Your task to perform on an android device: Go to internet settings Image 0: 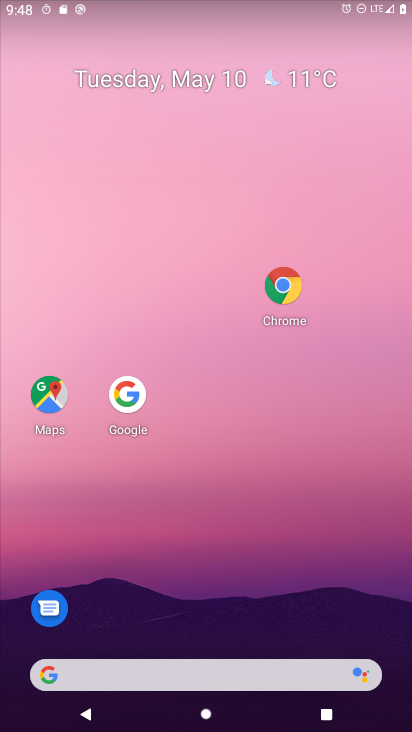
Step 0: drag from (229, 673) to (335, 90)
Your task to perform on an android device: Go to internet settings Image 1: 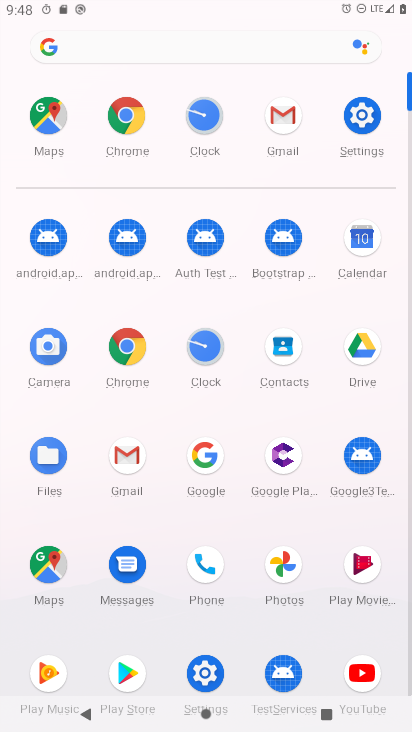
Step 1: click (363, 120)
Your task to perform on an android device: Go to internet settings Image 2: 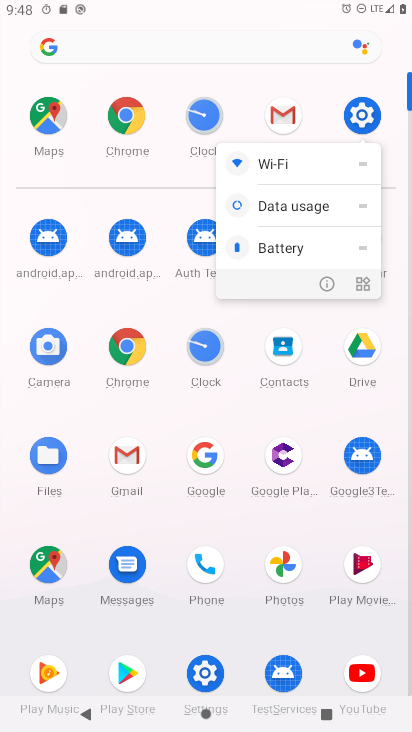
Step 2: click (362, 117)
Your task to perform on an android device: Go to internet settings Image 3: 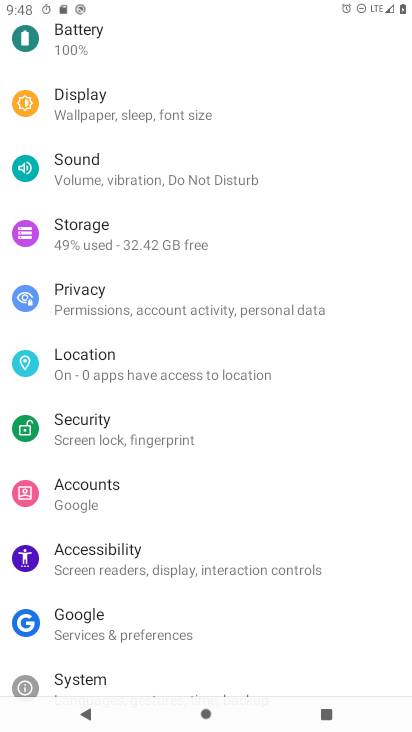
Step 3: drag from (246, 88) to (235, 477)
Your task to perform on an android device: Go to internet settings Image 4: 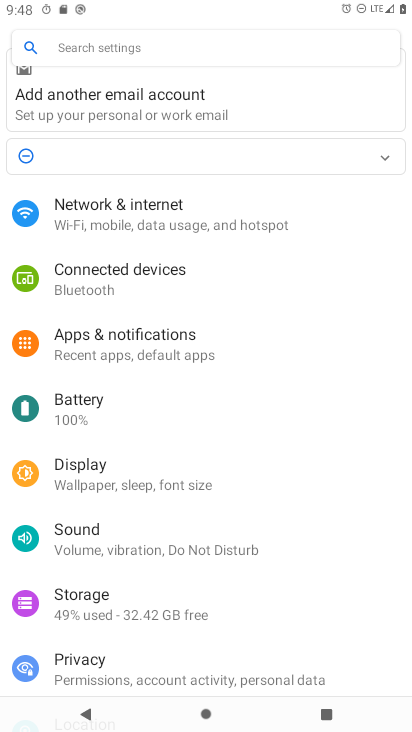
Step 4: click (166, 210)
Your task to perform on an android device: Go to internet settings Image 5: 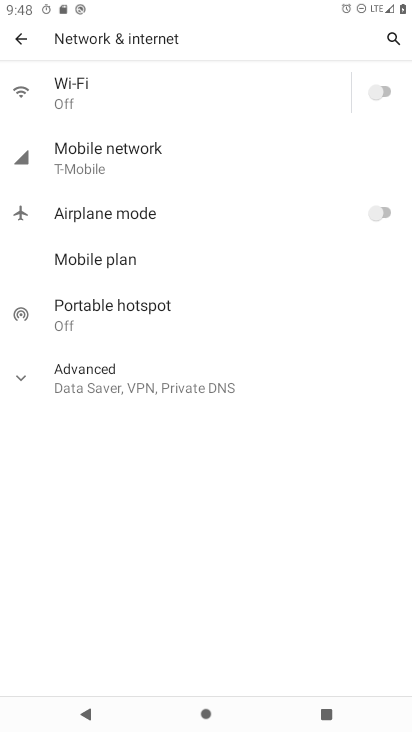
Step 5: click (170, 92)
Your task to perform on an android device: Go to internet settings Image 6: 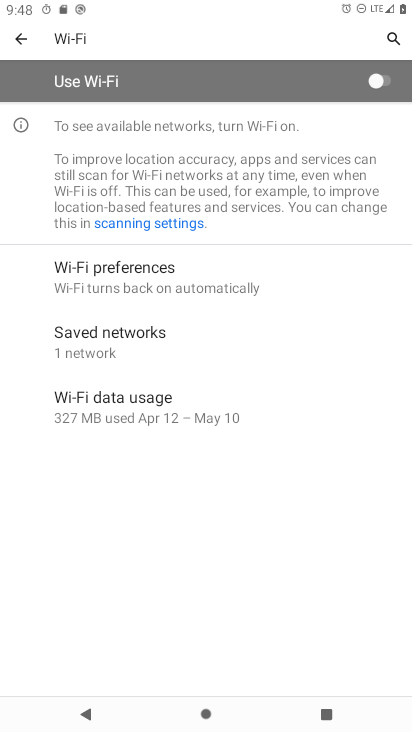
Step 6: task complete